Your task to perform on an android device: turn pop-ups on in chrome Image 0: 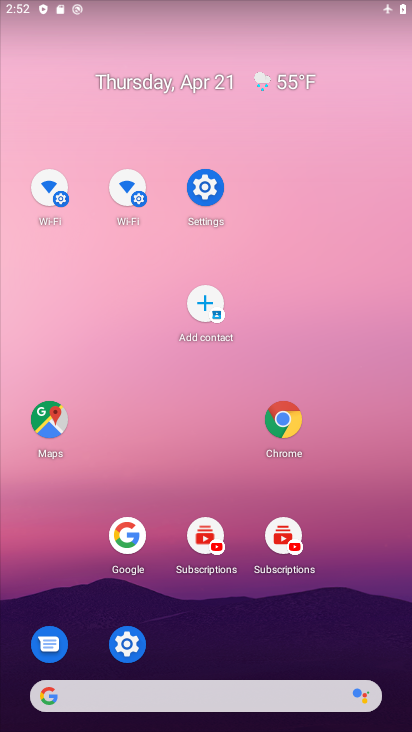
Step 0: drag from (247, 659) to (156, 69)
Your task to perform on an android device: turn pop-ups on in chrome Image 1: 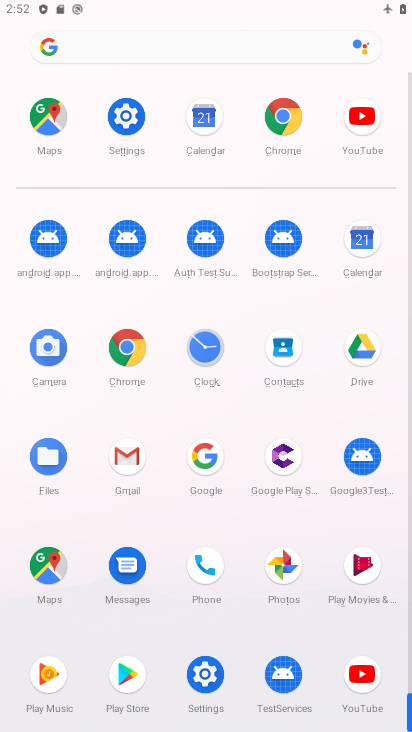
Step 1: click (280, 109)
Your task to perform on an android device: turn pop-ups on in chrome Image 2: 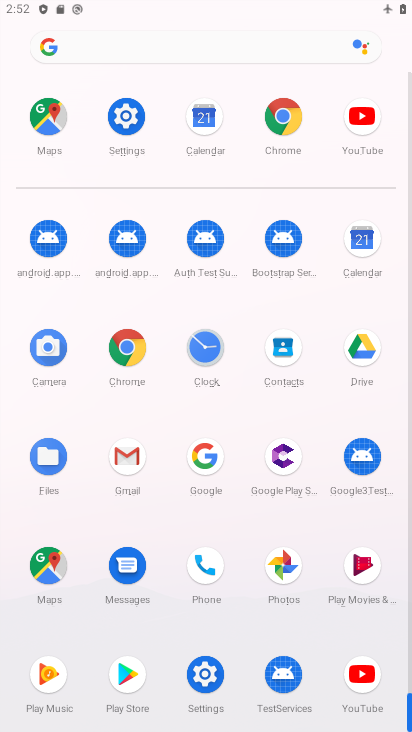
Step 2: click (280, 109)
Your task to perform on an android device: turn pop-ups on in chrome Image 3: 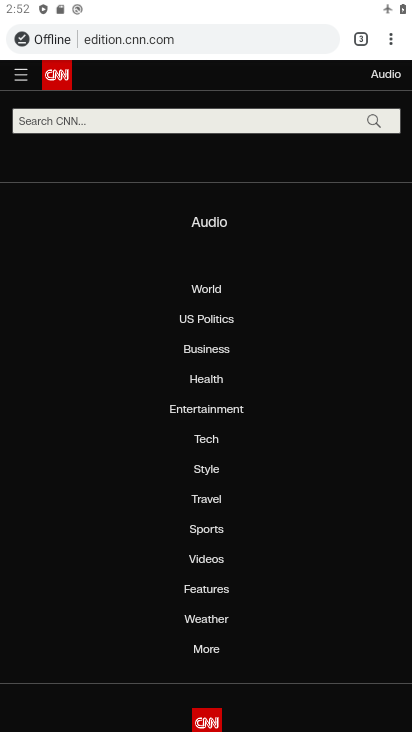
Step 3: drag from (391, 42) to (259, 463)
Your task to perform on an android device: turn pop-ups on in chrome Image 4: 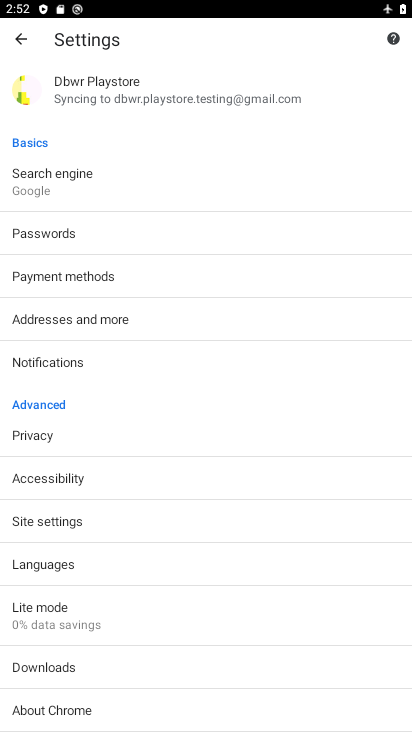
Step 4: drag from (113, 605) to (84, 197)
Your task to perform on an android device: turn pop-ups on in chrome Image 5: 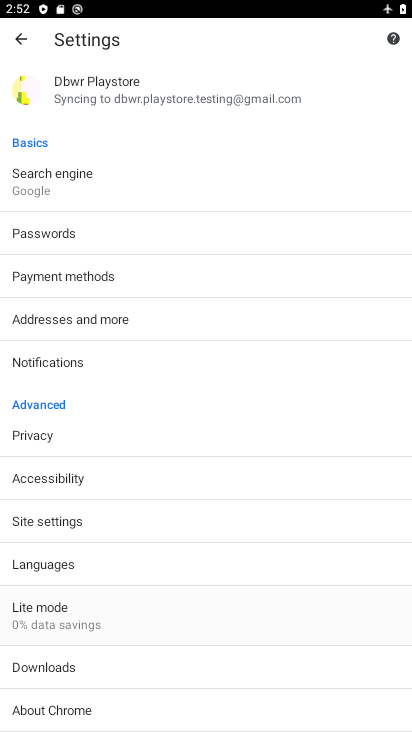
Step 5: drag from (167, 433) to (118, 19)
Your task to perform on an android device: turn pop-ups on in chrome Image 6: 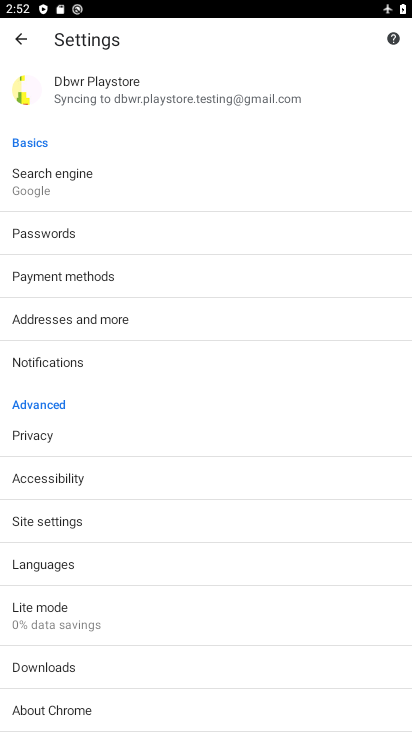
Step 6: click (35, 518)
Your task to perform on an android device: turn pop-ups on in chrome Image 7: 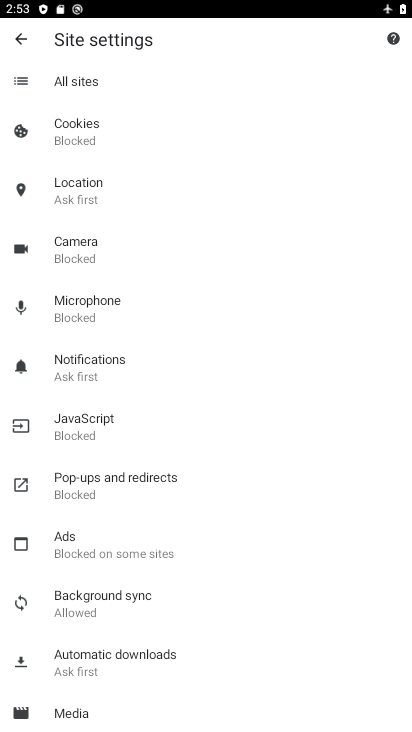
Step 7: click (80, 493)
Your task to perform on an android device: turn pop-ups on in chrome Image 8: 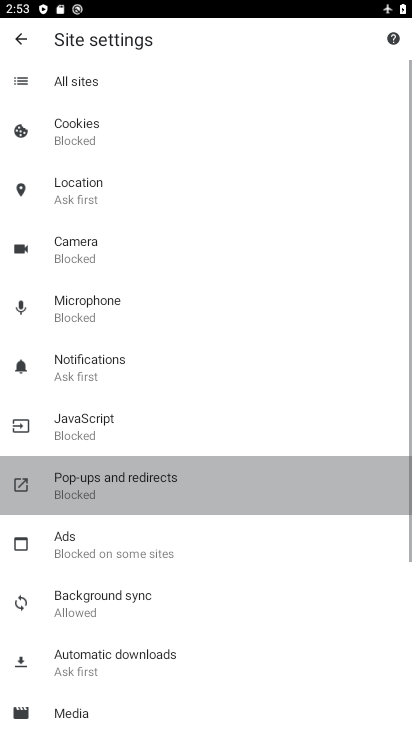
Step 8: click (80, 493)
Your task to perform on an android device: turn pop-ups on in chrome Image 9: 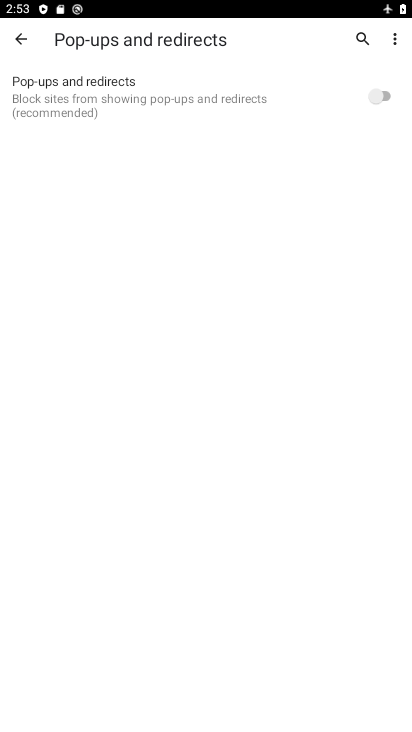
Step 9: click (379, 92)
Your task to perform on an android device: turn pop-ups on in chrome Image 10: 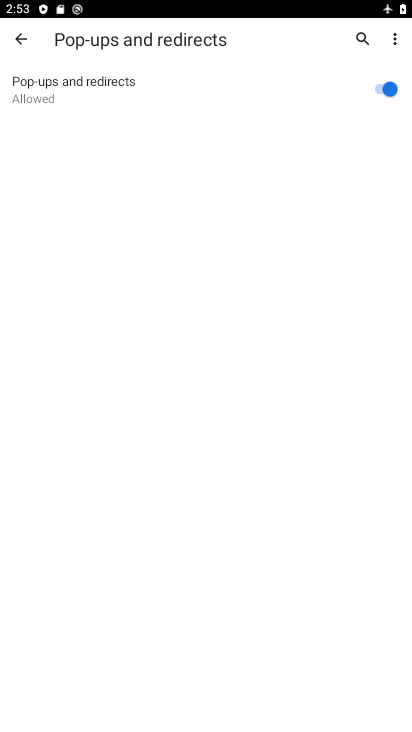
Step 10: task complete